Your task to perform on an android device: open chrome and create a bookmark for the current page Image 0: 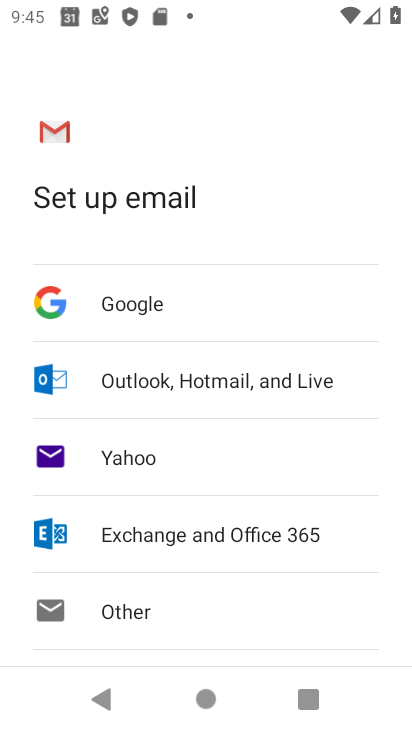
Step 0: press home button
Your task to perform on an android device: open chrome and create a bookmark for the current page Image 1: 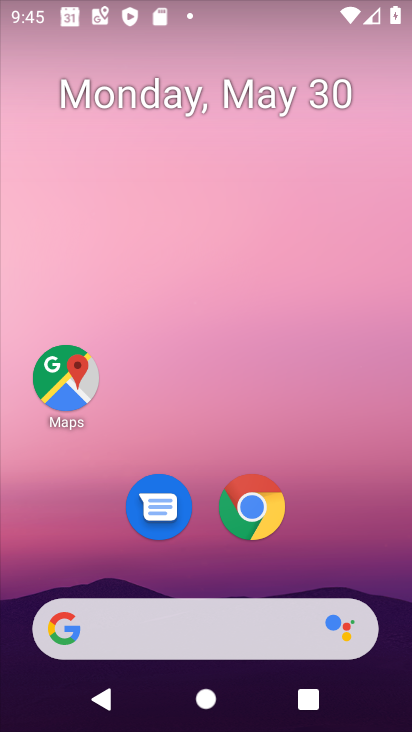
Step 1: drag from (158, 573) to (167, 195)
Your task to perform on an android device: open chrome and create a bookmark for the current page Image 2: 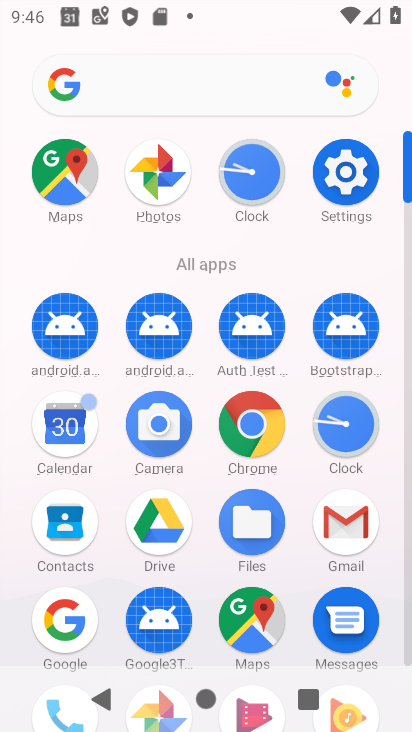
Step 2: click (337, 180)
Your task to perform on an android device: open chrome and create a bookmark for the current page Image 3: 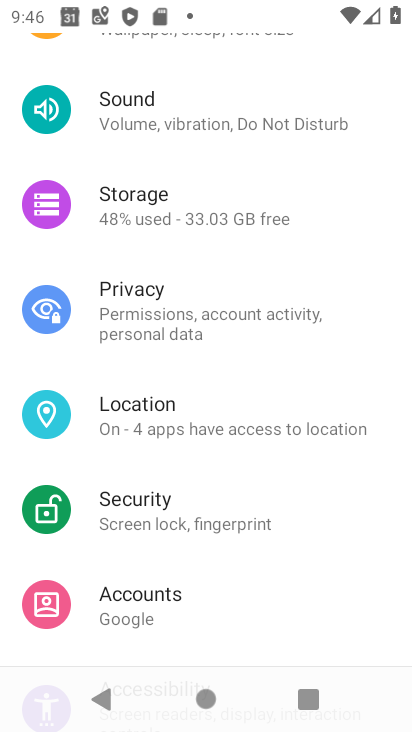
Step 3: drag from (367, 367) to (363, 613)
Your task to perform on an android device: open chrome and create a bookmark for the current page Image 4: 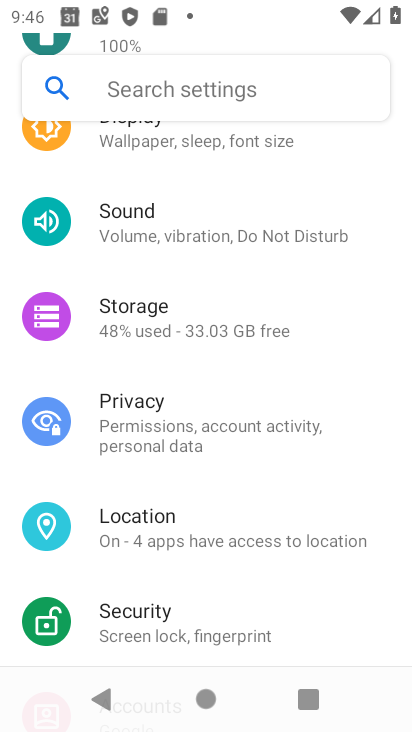
Step 4: press home button
Your task to perform on an android device: open chrome and create a bookmark for the current page Image 5: 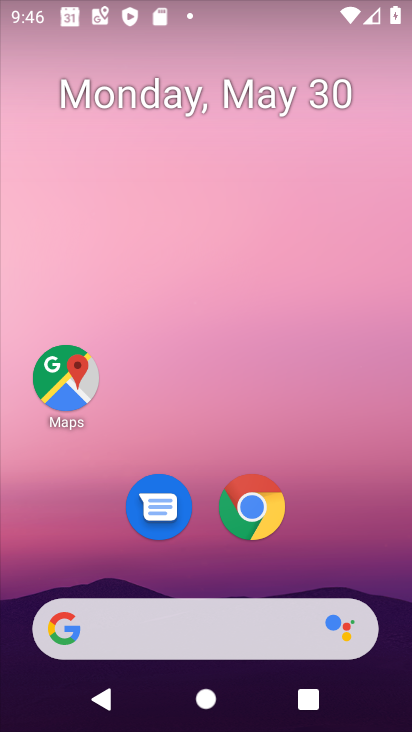
Step 5: click (244, 520)
Your task to perform on an android device: open chrome and create a bookmark for the current page Image 6: 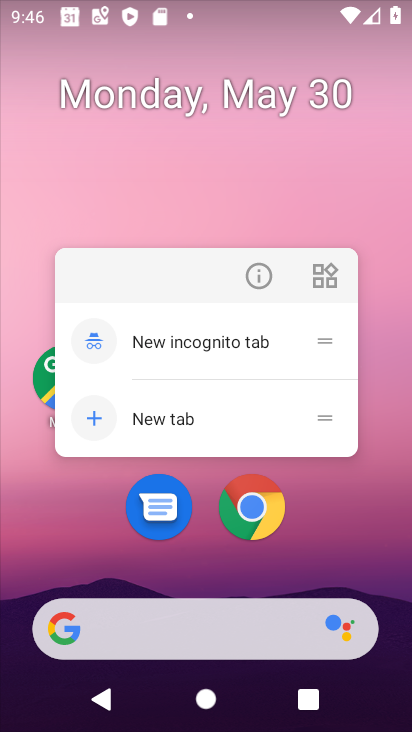
Step 6: click (249, 505)
Your task to perform on an android device: open chrome and create a bookmark for the current page Image 7: 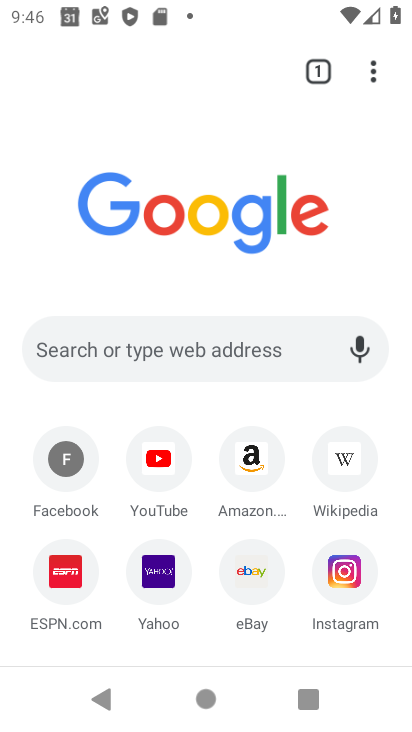
Step 7: click (370, 78)
Your task to perform on an android device: open chrome and create a bookmark for the current page Image 8: 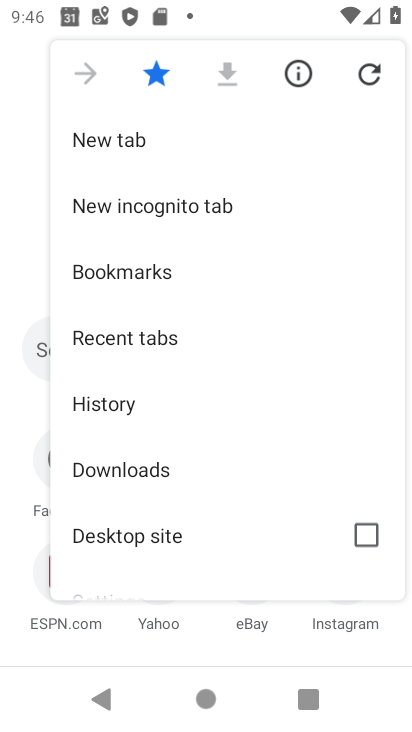
Step 8: click (117, 279)
Your task to perform on an android device: open chrome and create a bookmark for the current page Image 9: 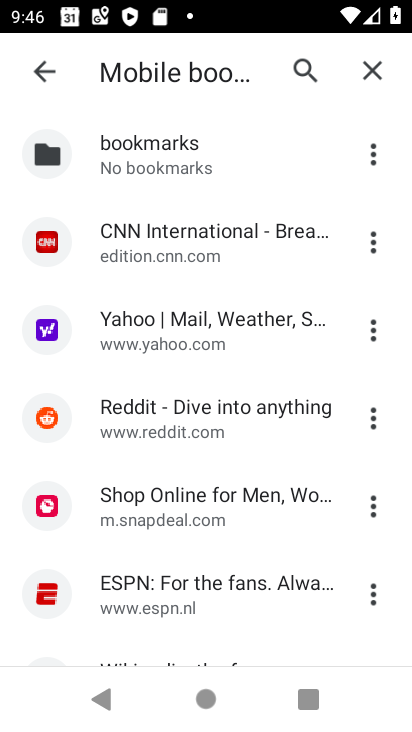
Step 9: task complete